Your task to perform on an android device: Open Google Chrome Image 0: 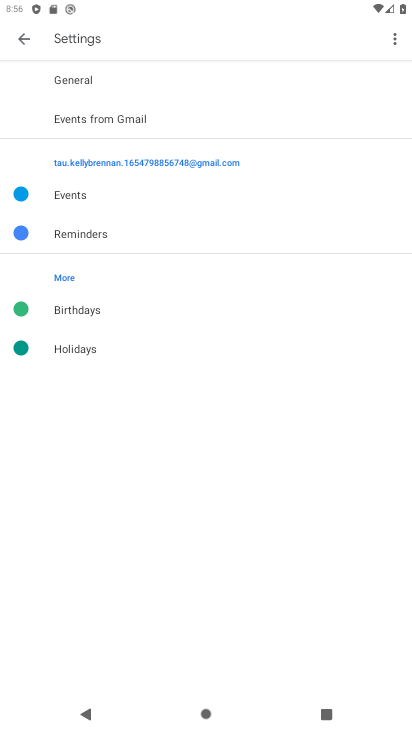
Step 0: press home button
Your task to perform on an android device: Open Google Chrome Image 1: 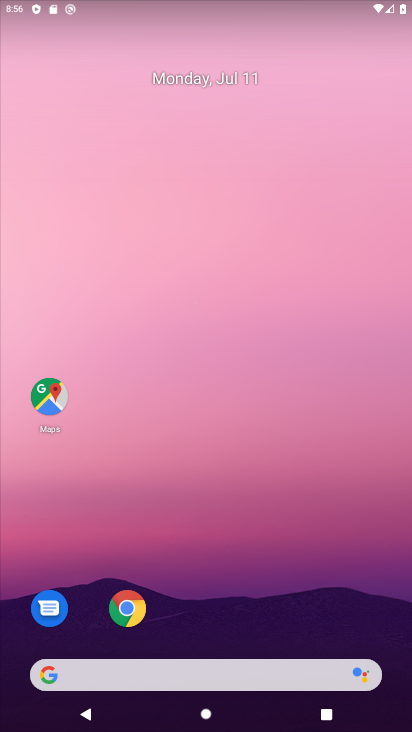
Step 1: click (140, 613)
Your task to perform on an android device: Open Google Chrome Image 2: 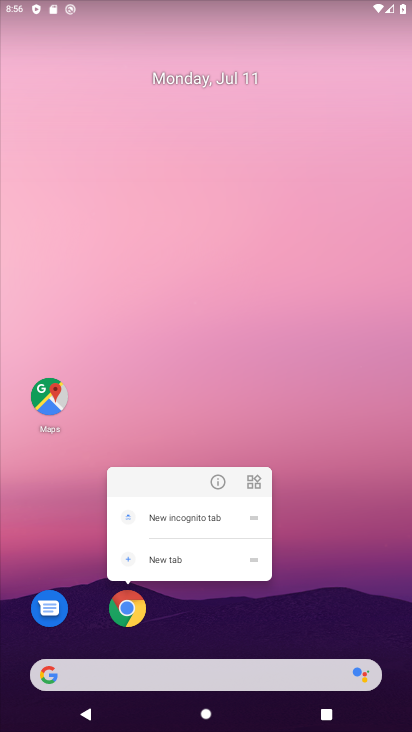
Step 2: click (133, 612)
Your task to perform on an android device: Open Google Chrome Image 3: 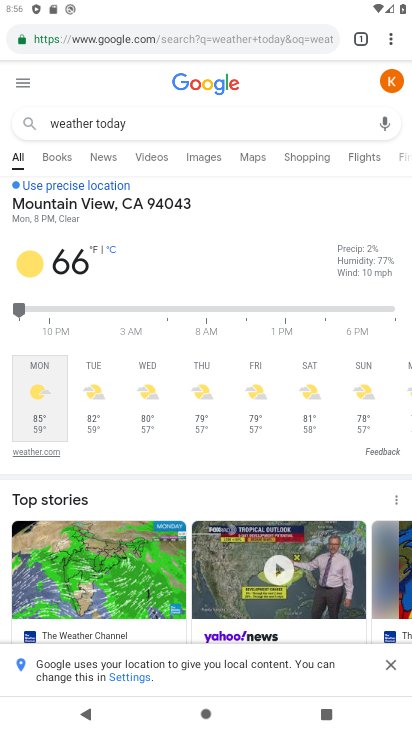
Step 3: task complete